Your task to perform on an android device: find snoozed emails in the gmail app Image 0: 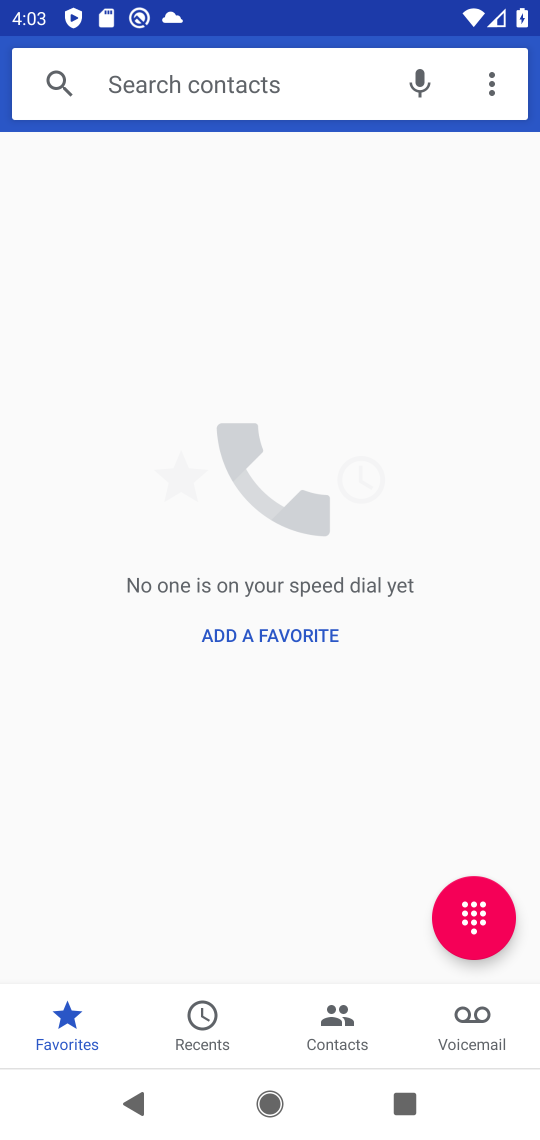
Step 0: press home button
Your task to perform on an android device: find snoozed emails in the gmail app Image 1: 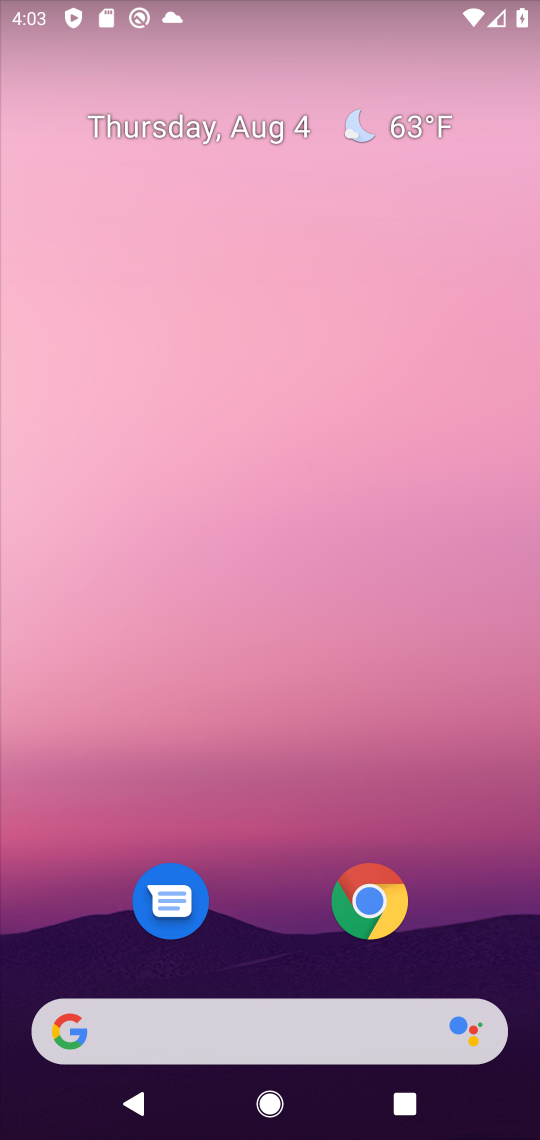
Step 1: drag from (264, 915) to (335, 155)
Your task to perform on an android device: find snoozed emails in the gmail app Image 2: 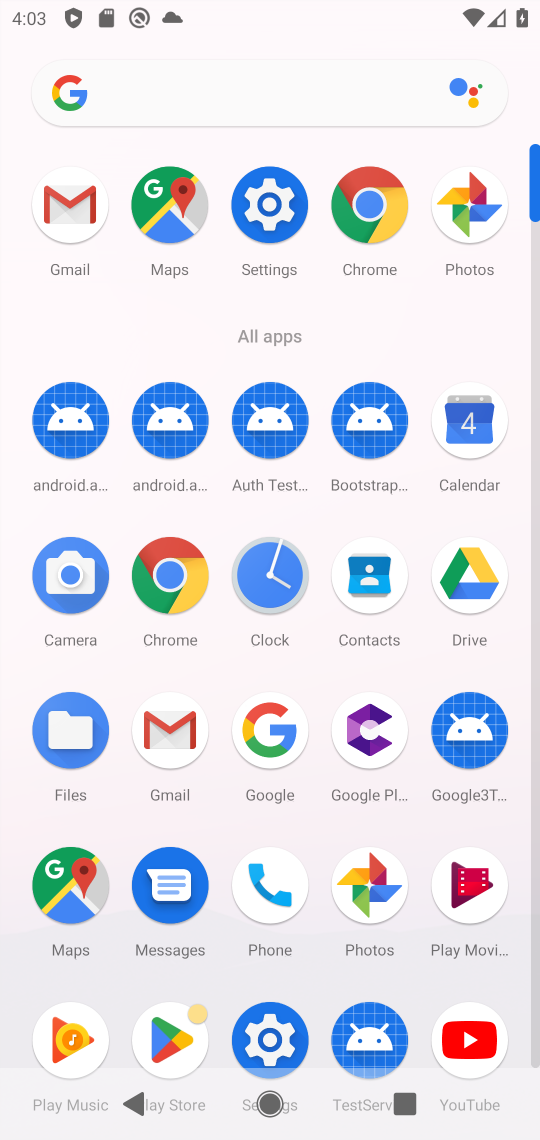
Step 2: click (156, 723)
Your task to perform on an android device: find snoozed emails in the gmail app Image 3: 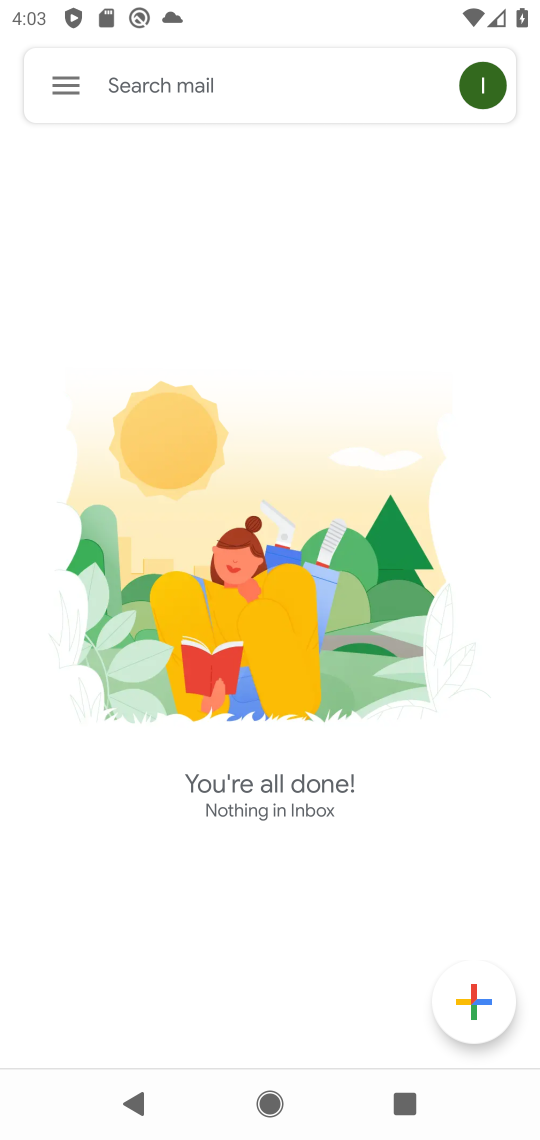
Step 3: click (71, 83)
Your task to perform on an android device: find snoozed emails in the gmail app Image 4: 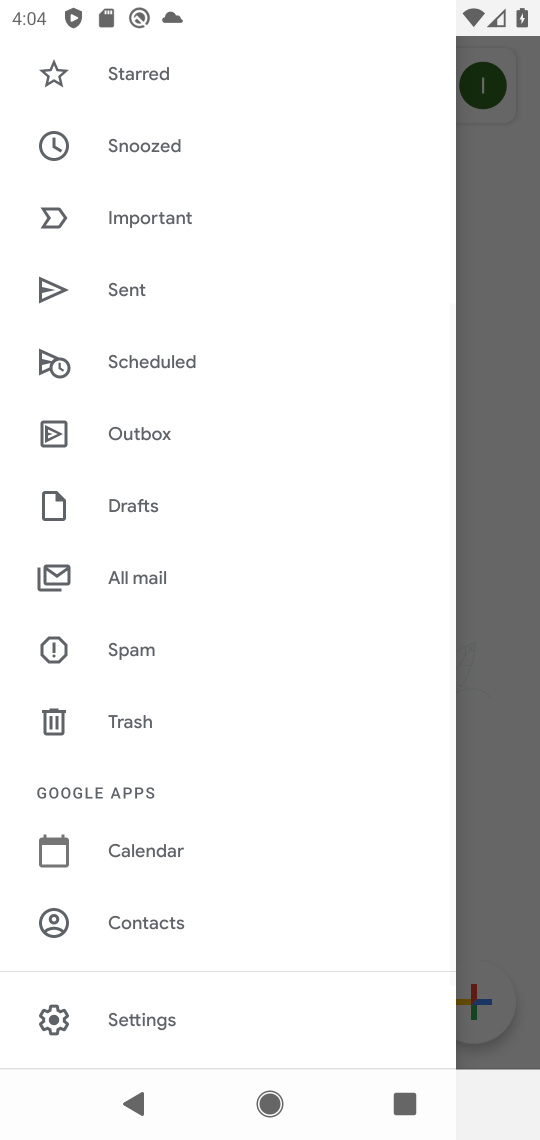
Step 4: click (127, 146)
Your task to perform on an android device: find snoozed emails in the gmail app Image 5: 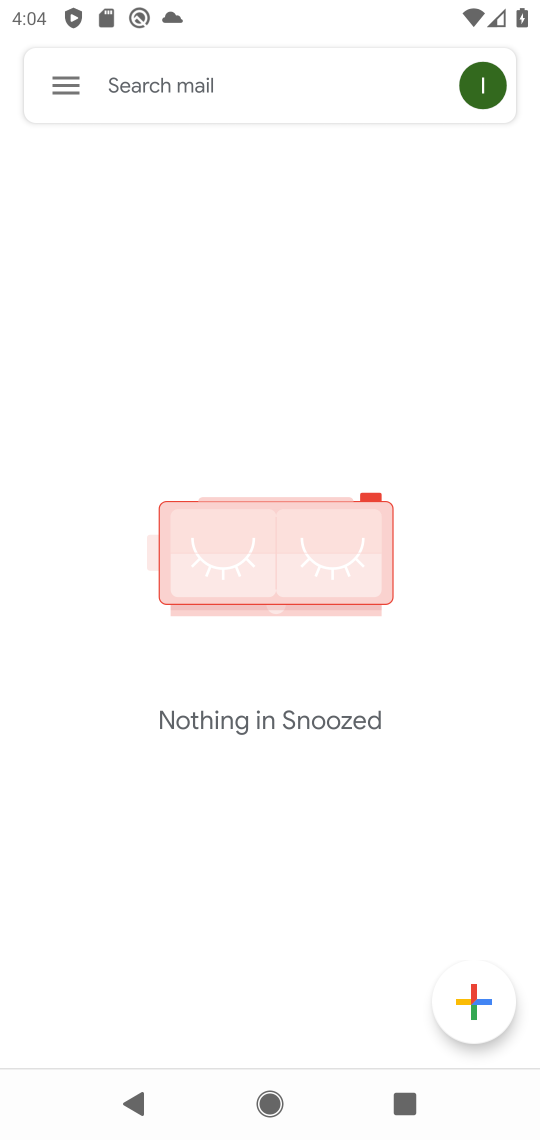
Step 5: task complete